Your task to perform on an android device: toggle javascript in the chrome app Image 0: 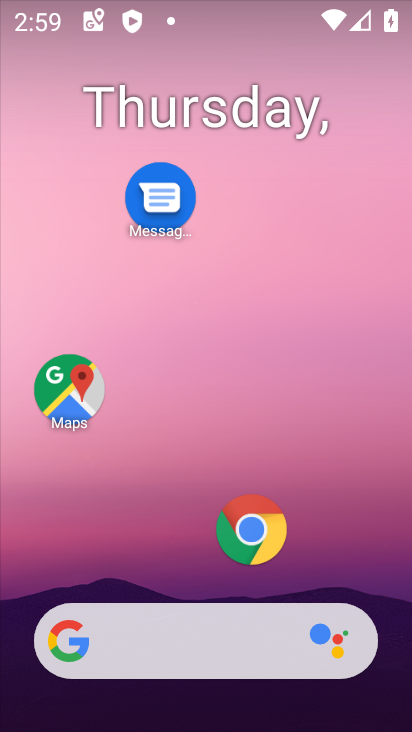
Step 0: drag from (144, 581) to (267, 258)
Your task to perform on an android device: toggle javascript in the chrome app Image 1: 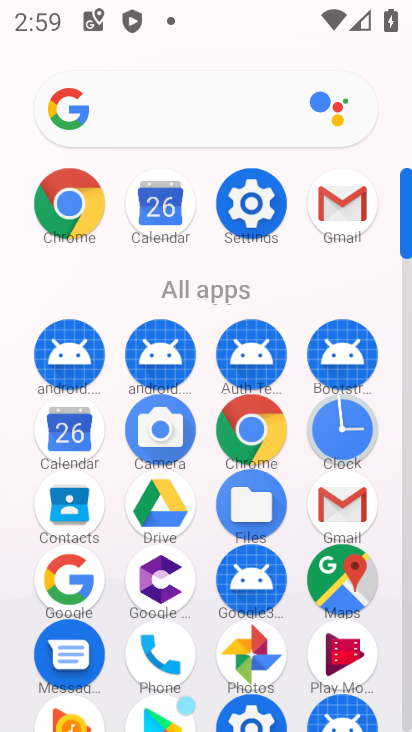
Step 1: click (69, 580)
Your task to perform on an android device: toggle javascript in the chrome app Image 2: 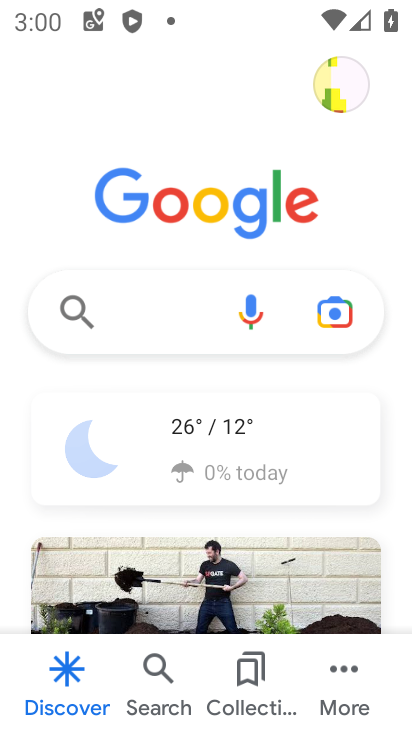
Step 2: press home button
Your task to perform on an android device: toggle javascript in the chrome app Image 3: 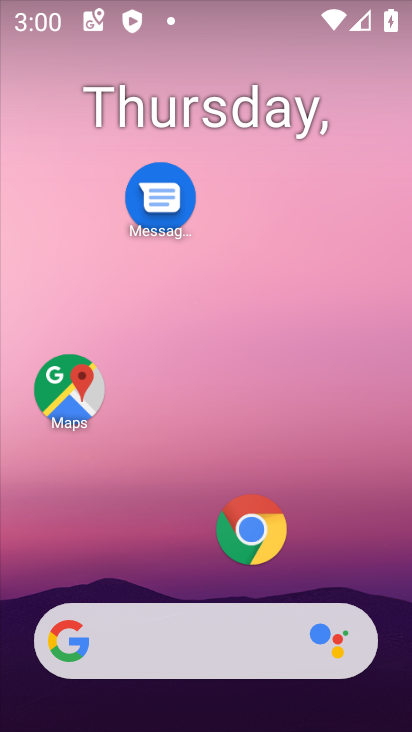
Step 3: click (251, 530)
Your task to perform on an android device: toggle javascript in the chrome app Image 4: 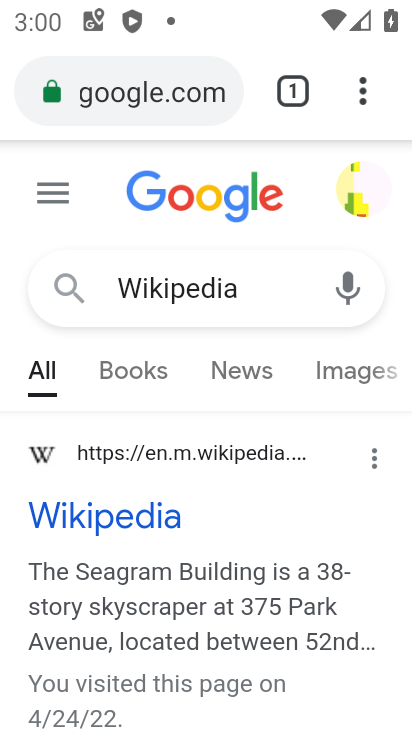
Step 4: click (366, 83)
Your task to perform on an android device: toggle javascript in the chrome app Image 5: 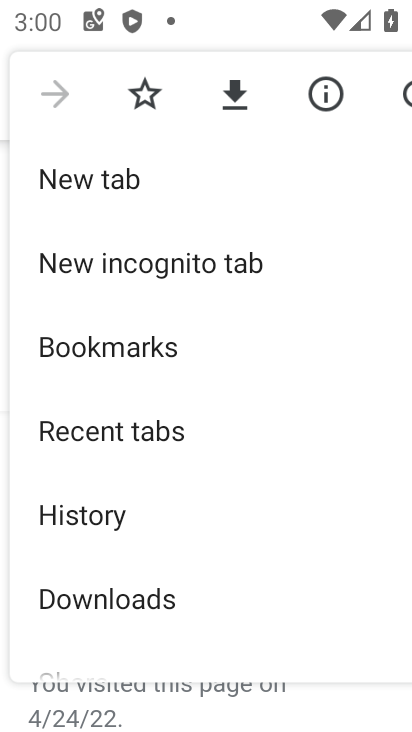
Step 5: drag from (138, 620) to (180, 263)
Your task to perform on an android device: toggle javascript in the chrome app Image 6: 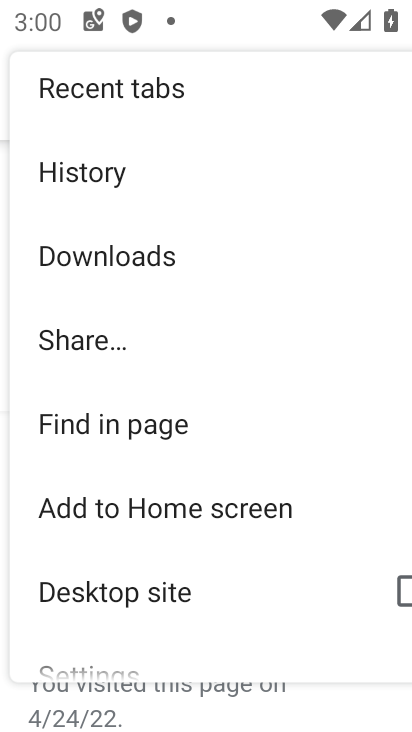
Step 6: drag from (86, 640) to (148, 354)
Your task to perform on an android device: toggle javascript in the chrome app Image 7: 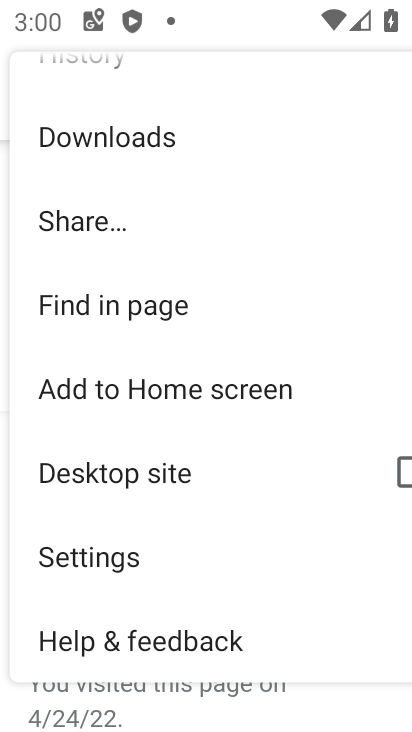
Step 7: click (118, 550)
Your task to perform on an android device: toggle javascript in the chrome app Image 8: 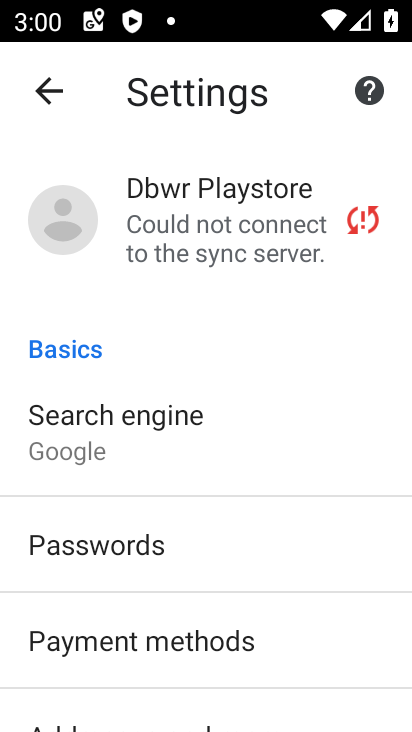
Step 8: drag from (171, 672) to (237, 233)
Your task to perform on an android device: toggle javascript in the chrome app Image 9: 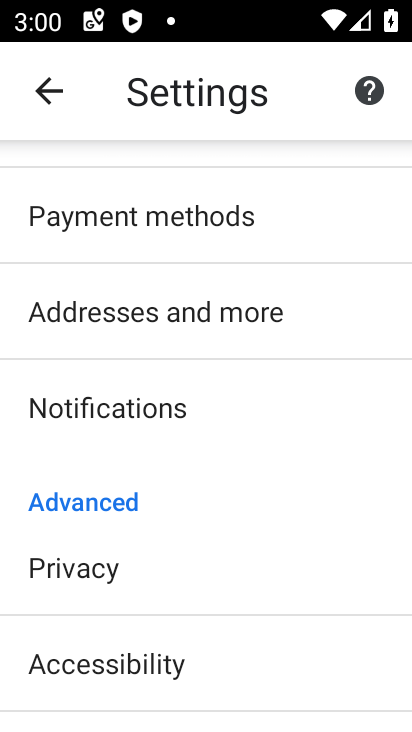
Step 9: drag from (188, 670) to (300, 345)
Your task to perform on an android device: toggle javascript in the chrome app Image 10: 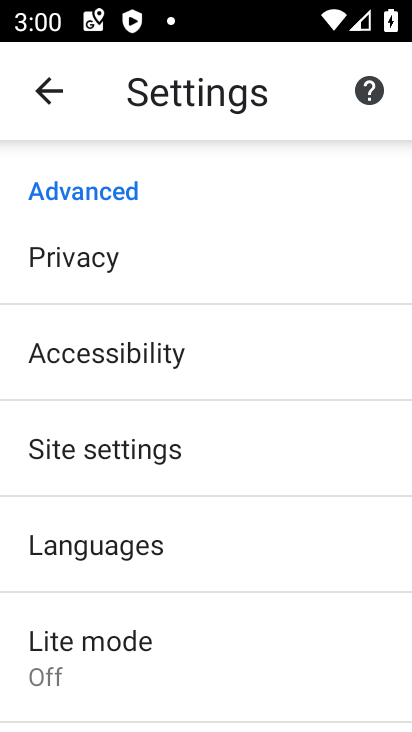
Step 10: click (119, 439)
Your task to perform on an android device: toggle javascript in the chrome app Image 11: 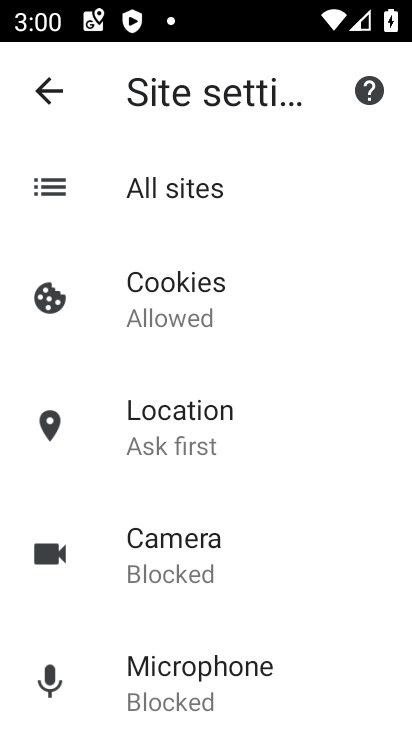
Step 11: drag from (196, 614) to (286, 256)
Your task to perform on an android device: toggle javascript in the chrome app Image 12: 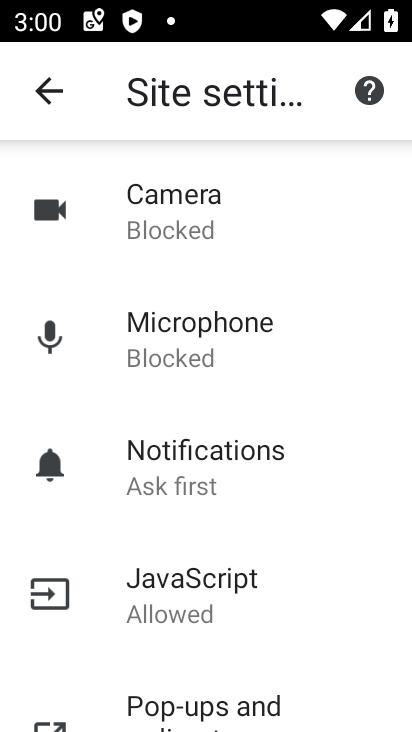
Step 12: click (206, 585)
Your task to perform on an android device: toggle javascript in the chrome app Image 13: 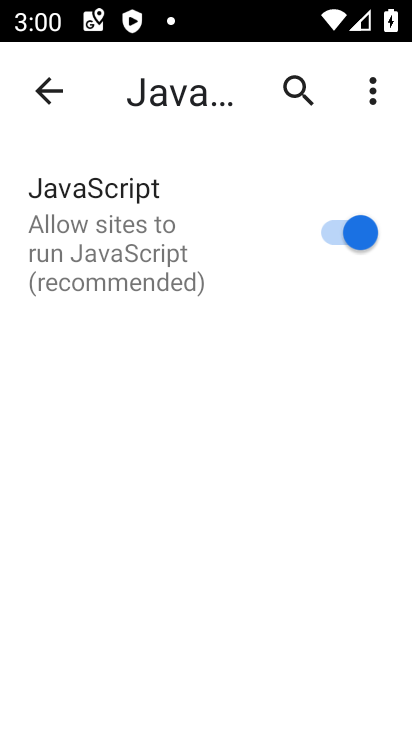
Step 13: click (320, 238)
Your task to perform on an android device: toggle javascript in the chrome app Image 14: 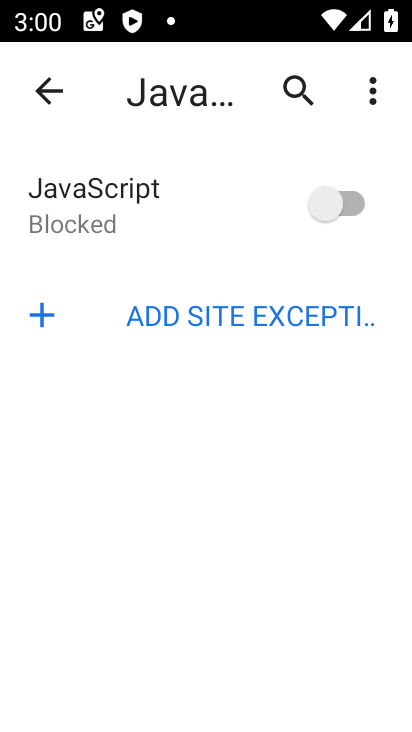
Step 14: task complete